Your task to perform on an android device: turn off notifications settings in the gmail app Image 0: 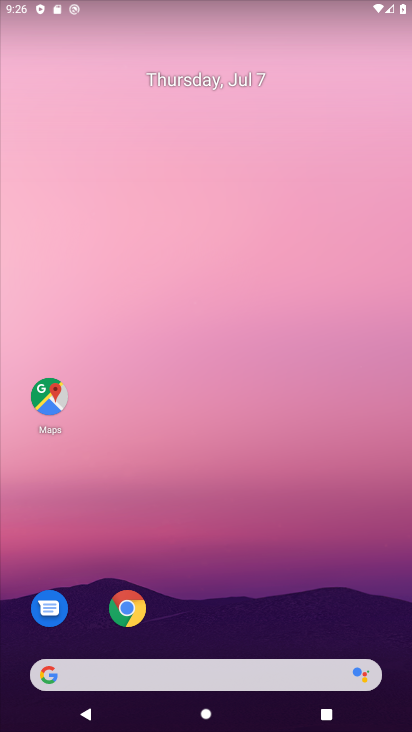
Step 0: drag from (224, 644) to (202, 30)
Your task to perform on an android device: turn off notifications settings in the gmail app Image 1: 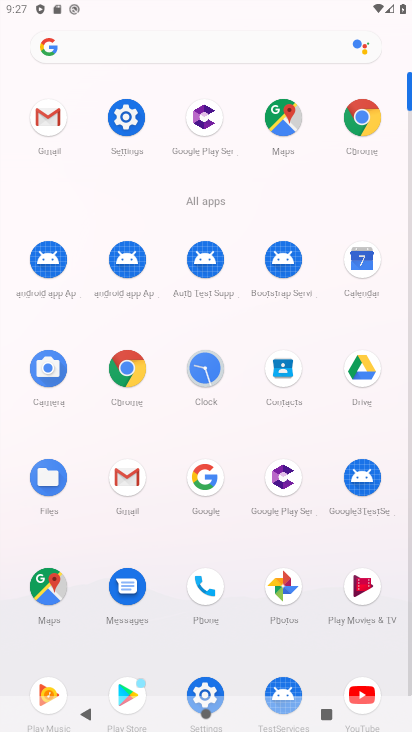
Step 1: click (129, 478)
Your task to perform on an android device: turn off notifications settings in the gmail app Image 2: 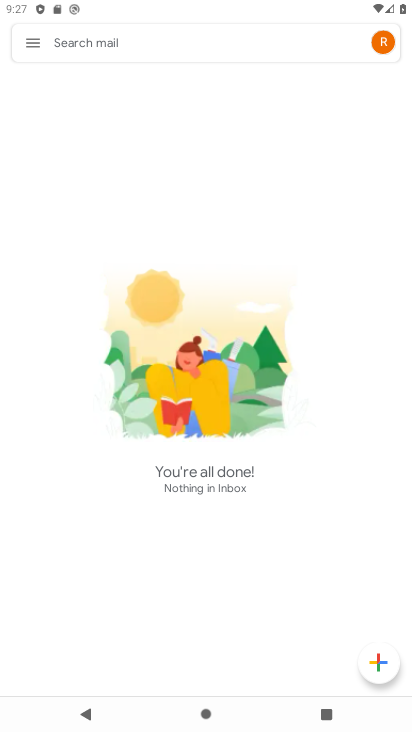
Step 2: click (30, 39)
Your task to perform on an android device: turn off notifications settings in the gmail app Image 3: 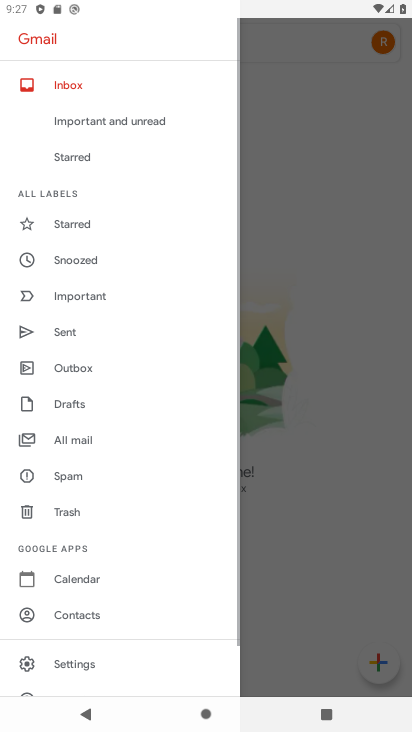
Step 3: click (83, 656)
Your task to perform on an android device: turn off notifications settings in the gmail app Image 4: 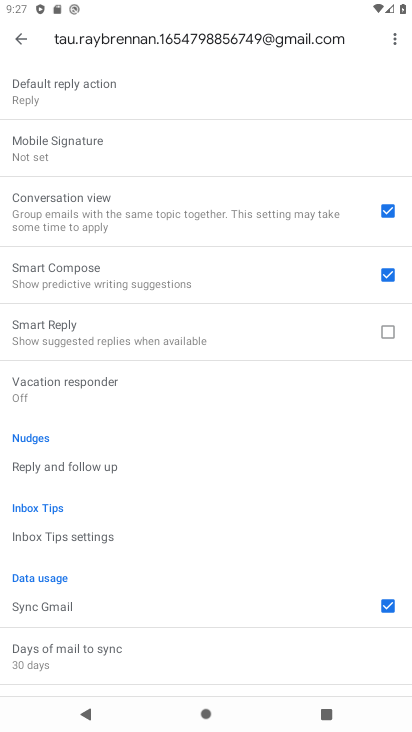
Step 4: drag from (115, 619) to (94, 193)
Your task to perform on an android device: turn off notifications settings in the gmail app Image 5: 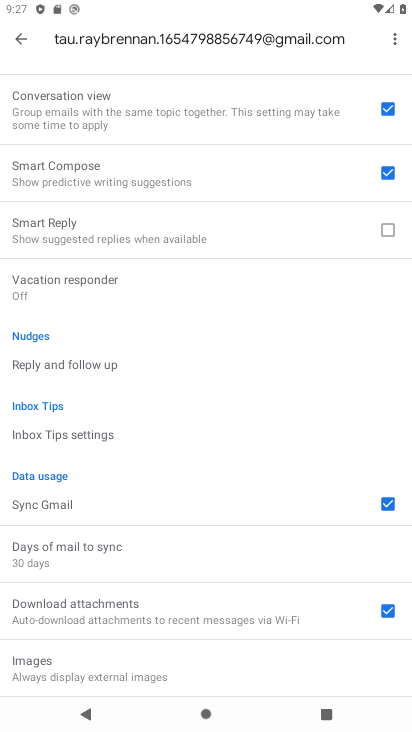
Step 5: drag from (161, 476) to (155, 411)
Your task to perform on an android device: turn off notifications settings in the gmail app Image 6: 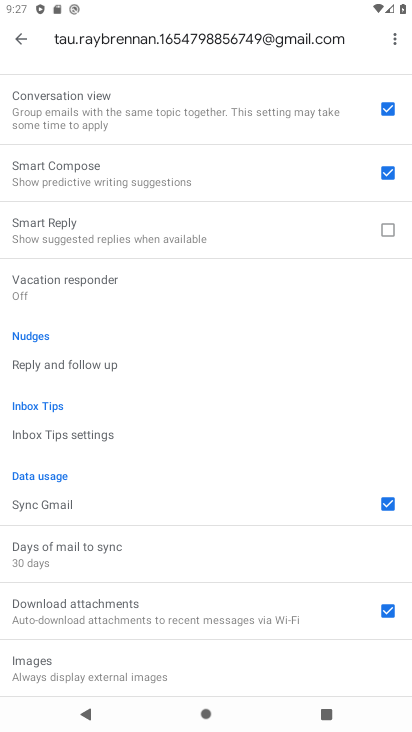
Step 6: click (21, 45)
Your task to perform on an android device: turn off notifications settings in the gmail app Image 7: 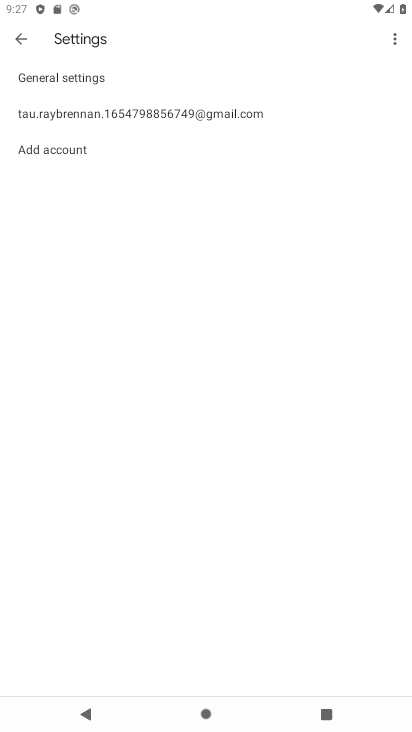
Step 7: click (40, 81)
Your task to perform on an android device: turn off notifications settings in the gmail app Image 8: 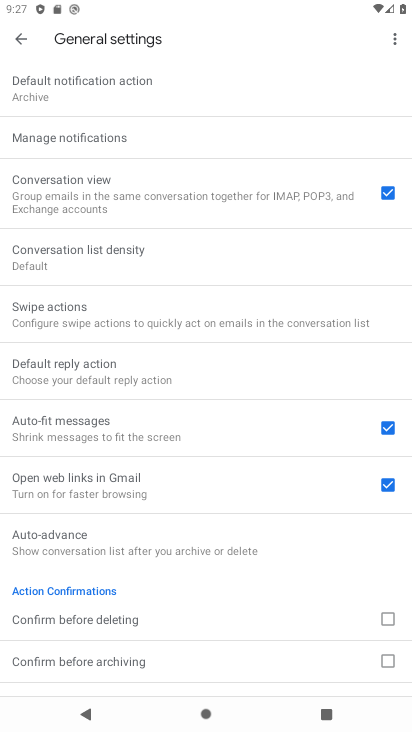
Step 8: click (74, 140)
Your task to perform on an android device: turn off notifications settings in the gmail app Image 9: 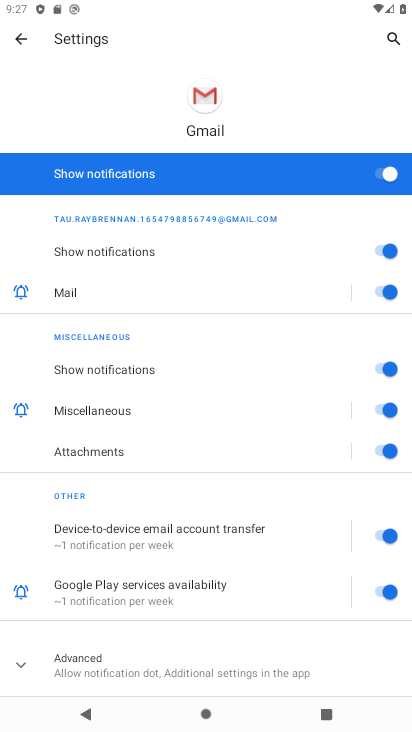
Step 9: click (114, 135)
Your task to perform on an android device: turn off notifications settings in the gmail app Image 10: 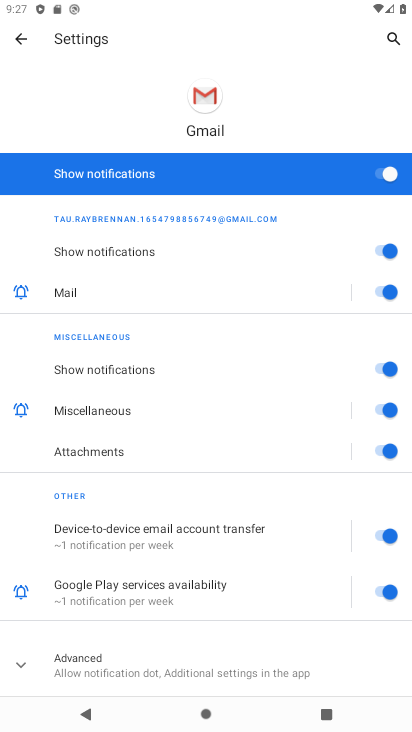
Step 10: click (373, 165)
Your task to perform on an android device: turn off notifications settings in the gmail app Image 11: 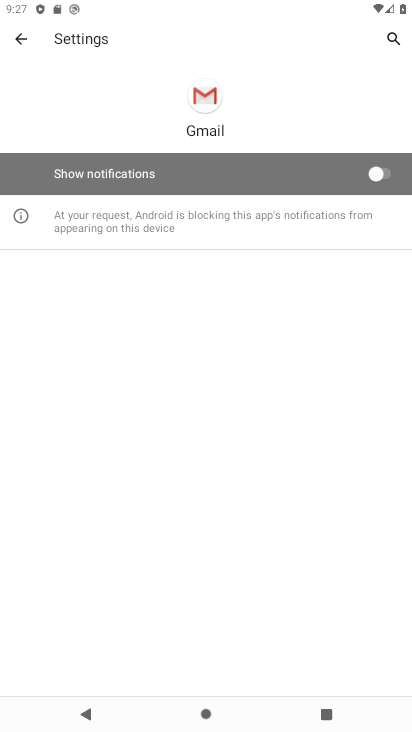
Step 11: task complete